Your task to perform on an android device: change alarm snooze length Image 0: 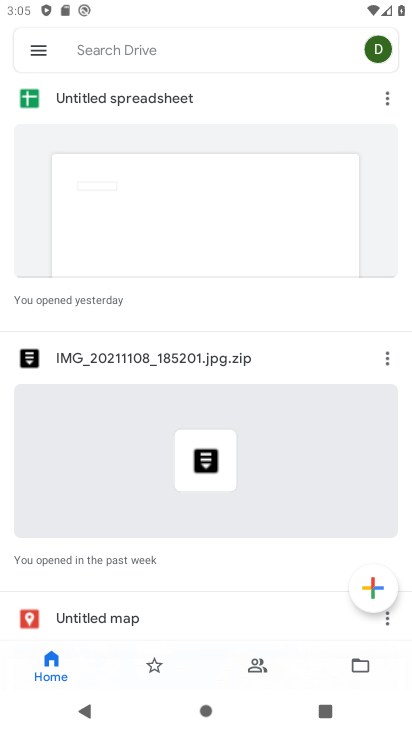
Step 0: press home button
Your task to perform on an android device: change alarm snooze length Image 1: 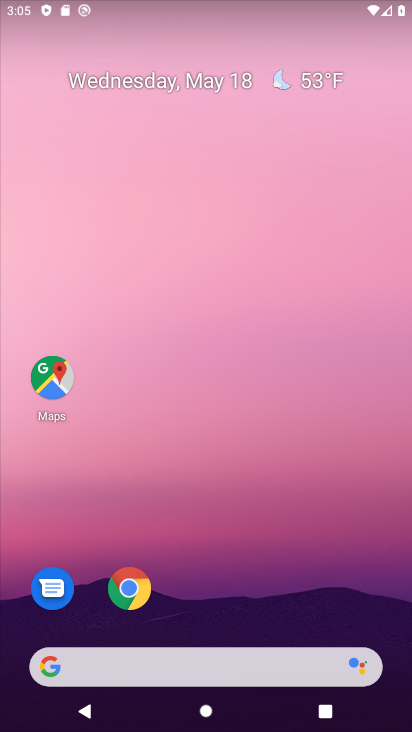
Step 1: drag from (199, 561) to (303, 26)
Your task to perform on an android device: change alarm snooze length Image 2: 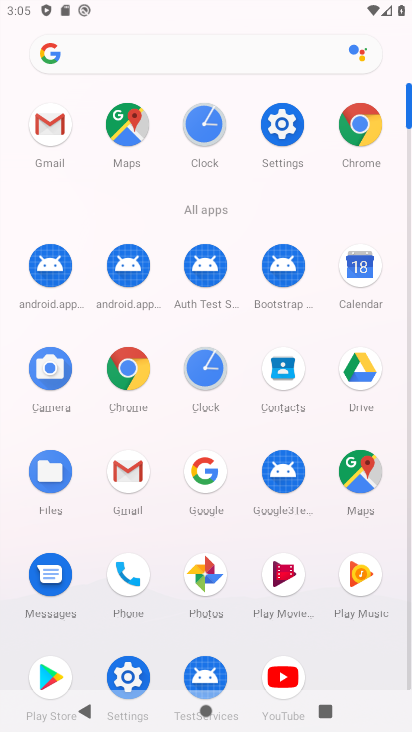
Step 2: click (209, 107)
Your task to perform on an android device: change alarm snooze length Image 3: 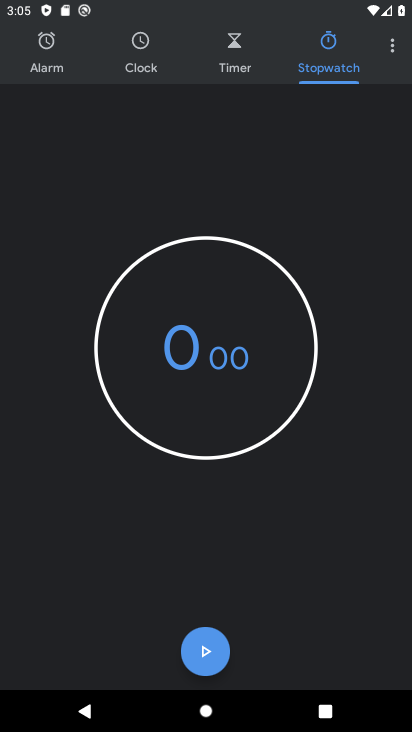
Step 3: click (390, 67)
Your task to perform on an android device: change alarm snooze length Image 4: 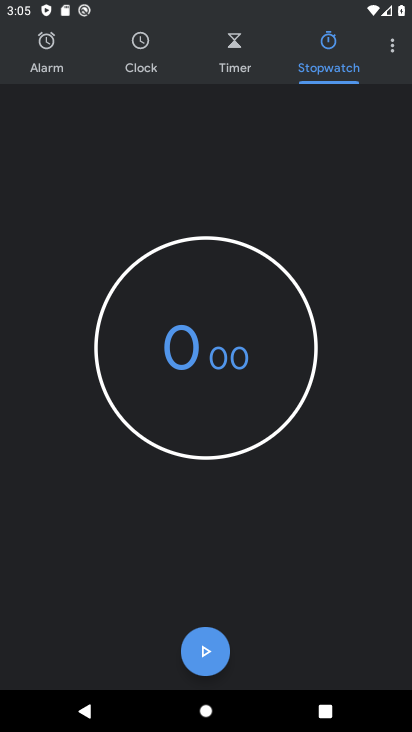
Step 4: click (394, 56)
Your task to perform on an android device: change alarm snooze length Image 5: 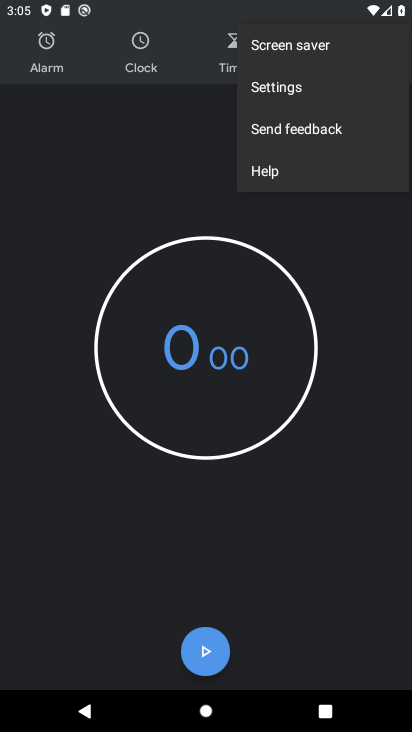
Step 5: click (322, 88)
Your task to perform on an android device: change alarm snooze length Image 6: 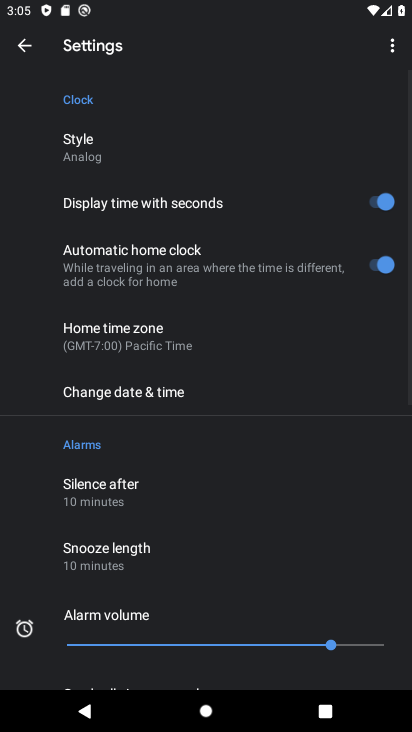
Step 6: click (149, 551)
Your task to perform on an android device: change alarm snooze length Image 7: 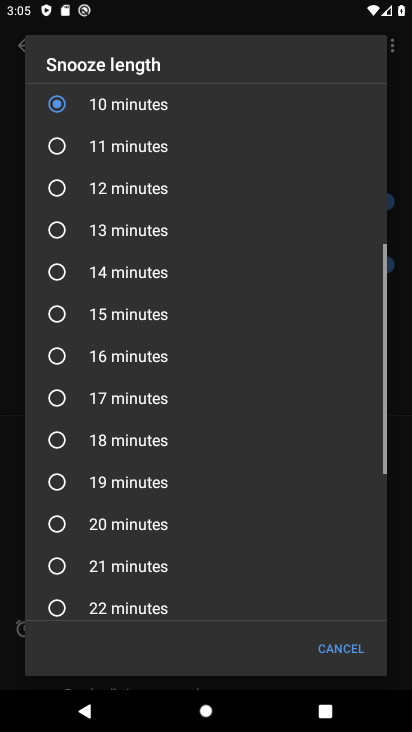
Step 7: click (149, 551)
Your task to perform on an android device: change alarm snooze length Image 8: 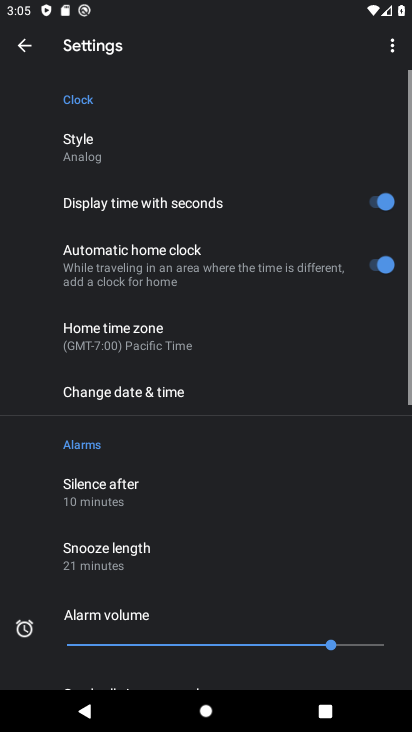
Step 8: task complete